Your task to perform on an android device: open the mobile data screen to see how much data has been used Image 0: 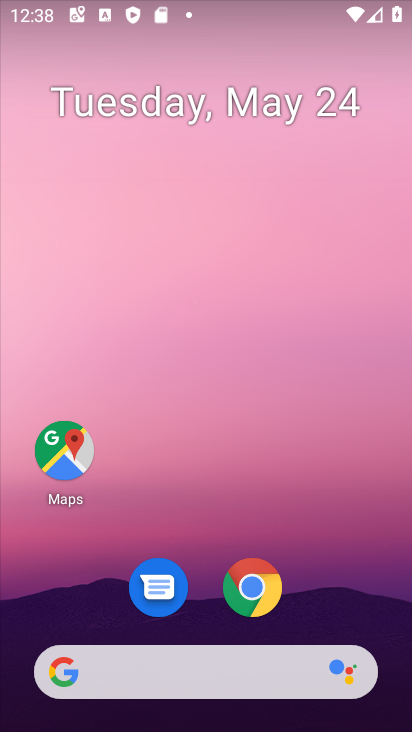
Step 0: drag from (175, 723) to (227, 145)
Your task to perform on an android device: open the mobile data screen to see how much data has been used Image 1: 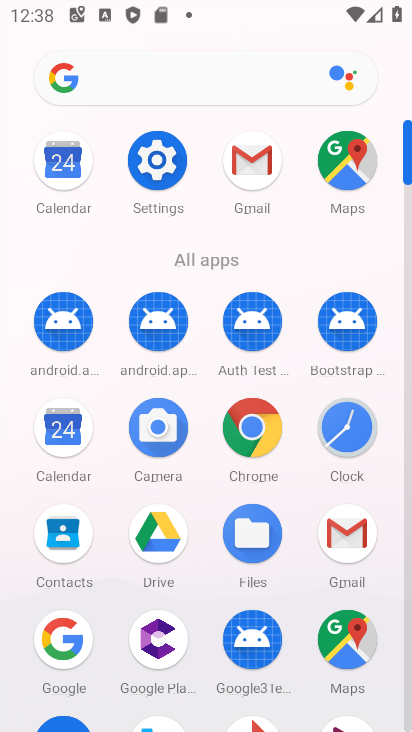
Step 1: click (157, 165)
Your task to perform on an android device: open the mobile data screen to see how much data has been used Image 2: 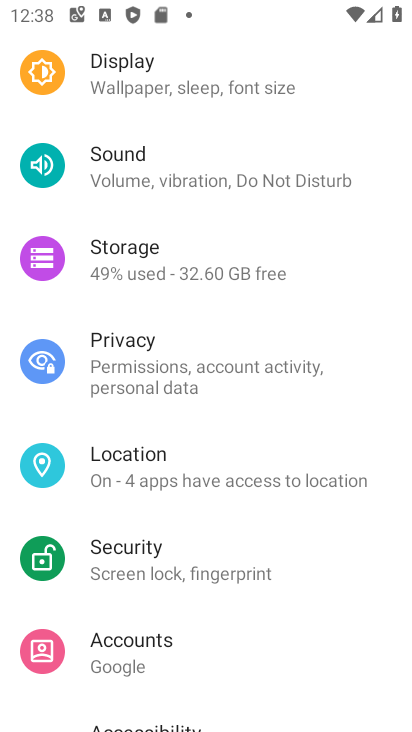
Step 2: drag from (265, 113) to (263, 634)
Your task to perform on an android device: open the mobile data screen to see how much data has been used Image 3: 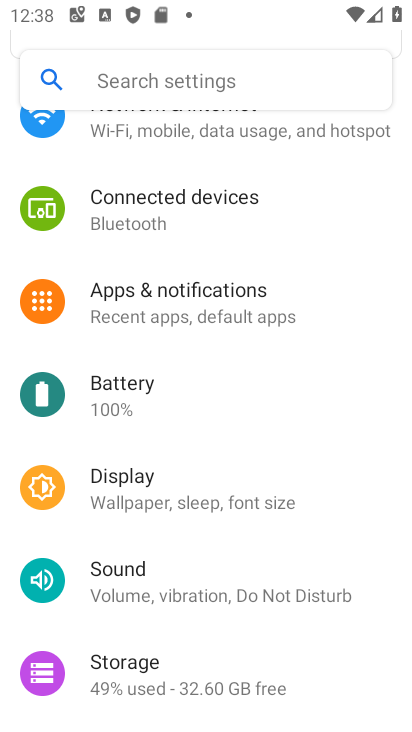
Step 3: click (248, 146)
Your task to perform on an android device: open the mobile data screen to see how much data has been used Image 4: 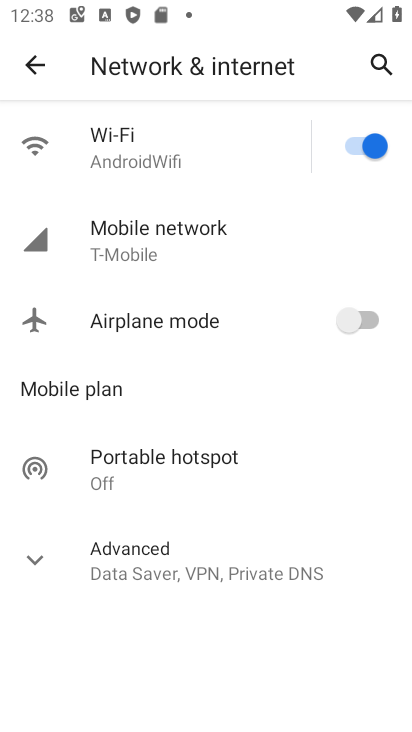
Step 4: click (123, 238)
Your task to perform on an android device: open the mobile data screen to see how much data has been used Image 5: 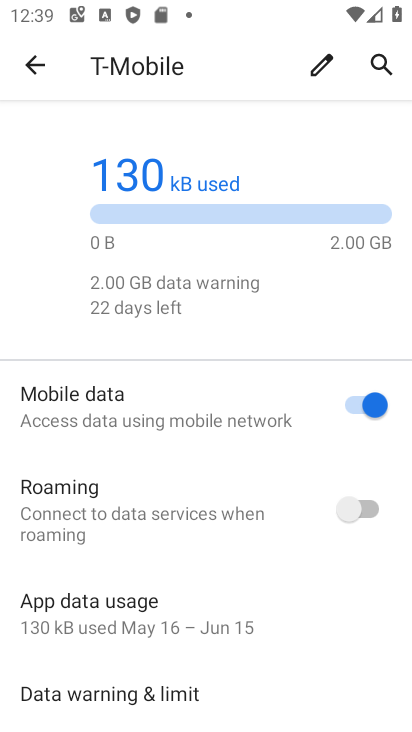
Step 5: task complete